Your task to perform on an android device: snooze an email in the gmail app Image 0: 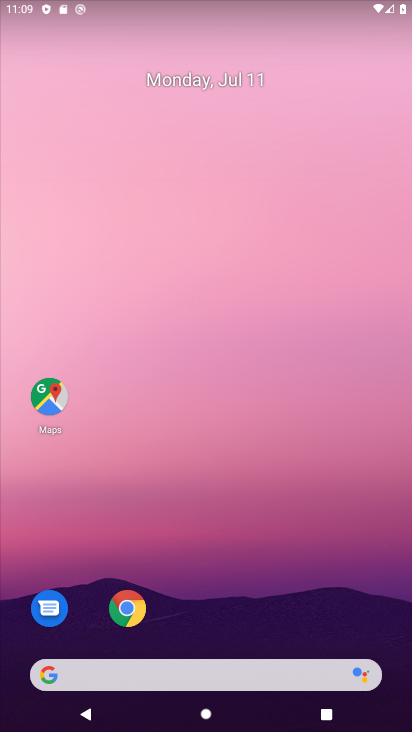
Step 0: drag from (174, 616) to (201, 68)
Your task to perform on an android device: snooze an email in the gmail app Image 1: 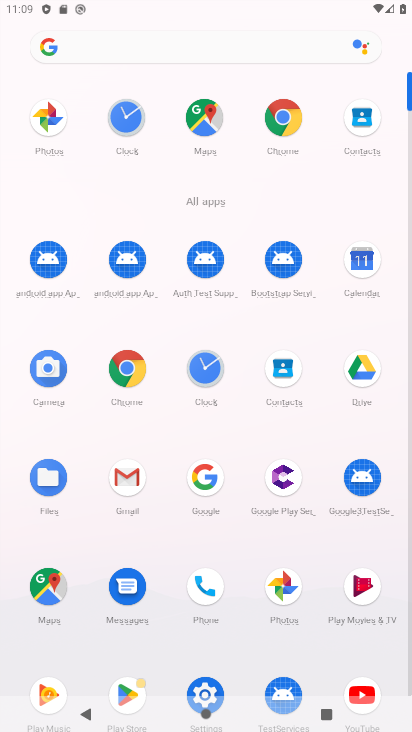
Step 1: click (137, 476)
Your task to perform on an android device: snooze an email in the gmail app Image 2: 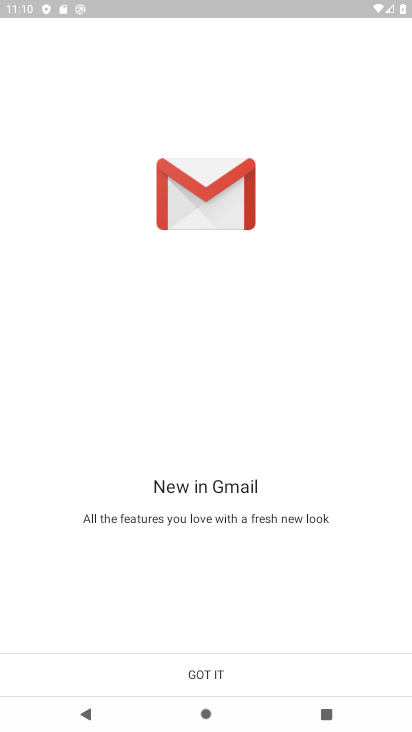
Step 2: click (228, 671)
Your task to perform on an android device: snooze an email in the gmail app Image 3: 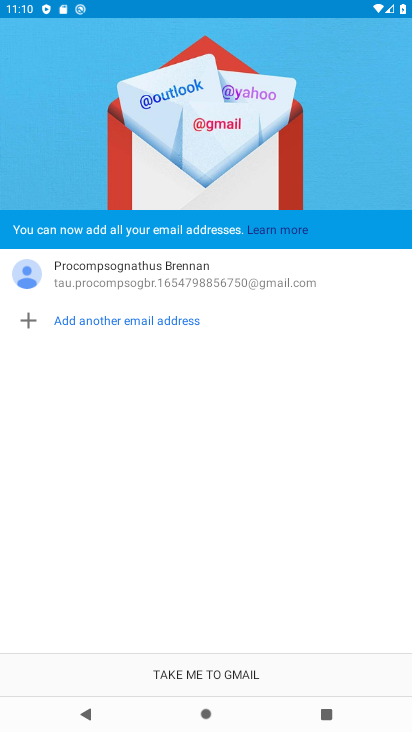
Step 3: click (228, 671)
Your task to perform on an android device: snooze an email in the gmail app Image 4: 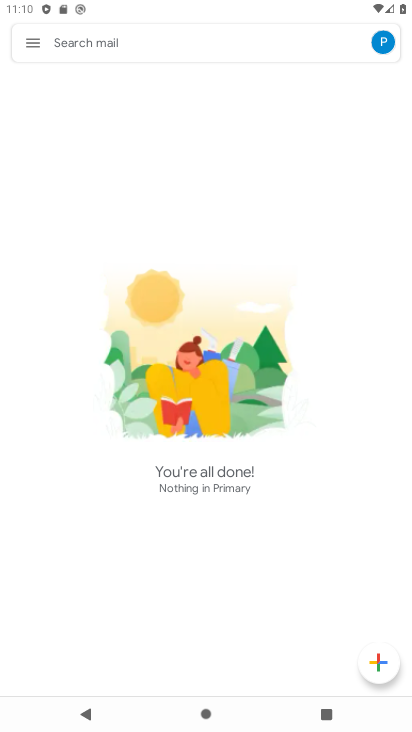
Step 4: click (41, 43)
Your task to perform on an android device: snooze an email in the gmail app Image 5: 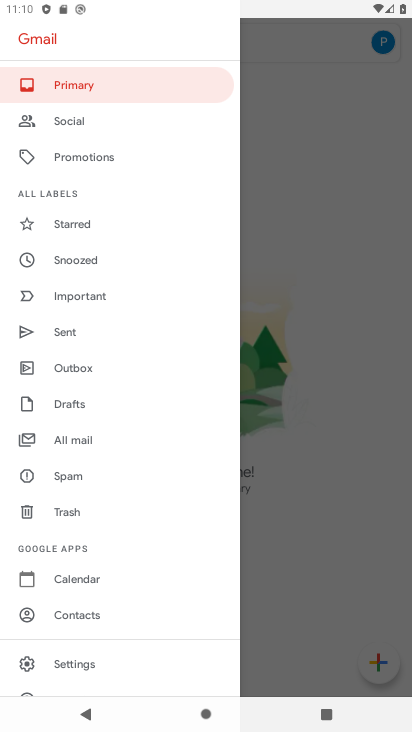
Step 5: click (102, 446)
Your task to perform on an android device: snooze an email in the gmail app Image 6: 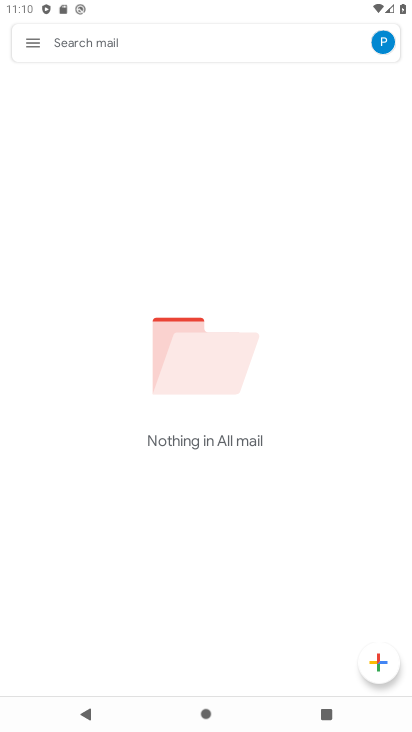
Step 6: task complete